Your task to perform on an android device: Open settings on Google Maps Image 0: 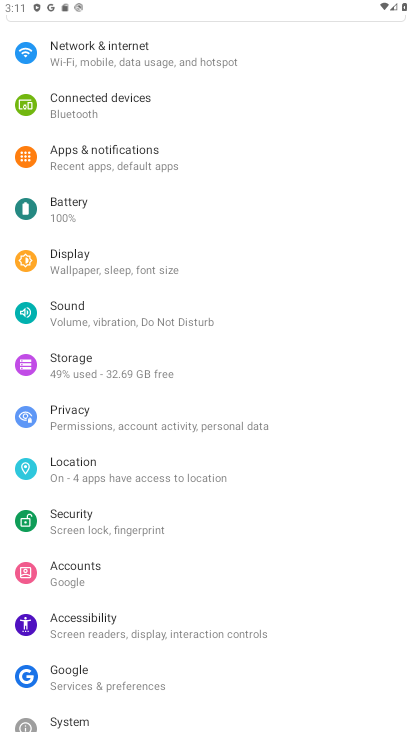
Step 0: press home button
Your task to perform on an android device: Open settings on Google Maps Image 1: 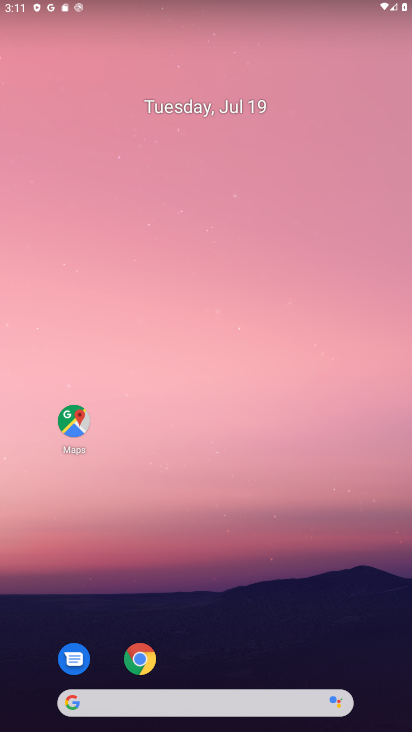
Step 1: drag from (256, 651) to (342, 120)
Your task to perform on an android device: Open settings on Google Maps Image 2: 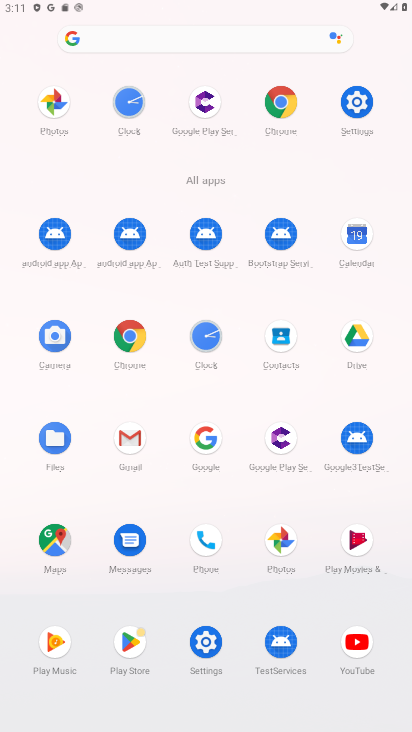
Step 2: click (60, 541)
Your task to perform on an android device: Open settings on Google Maps Image 3: 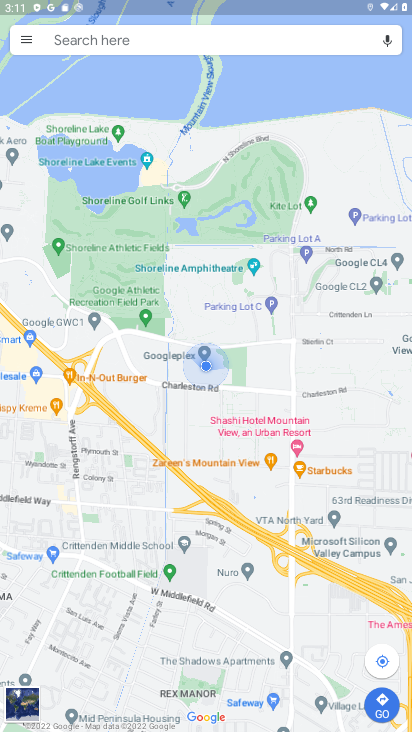
Step 3: click (36, 47)
Your task to perform on an android device: Open settings on Google Maps Image 4: 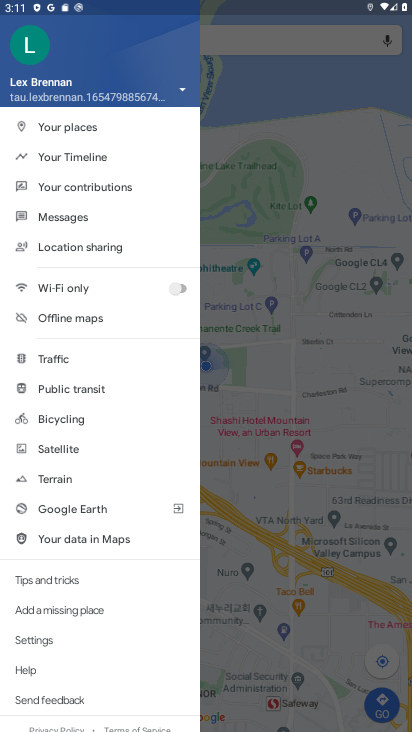
Step 4: drag from (101, 669) to (133, 431)
Your task to perform on an android device: Open settings on Google Maps Image 5: 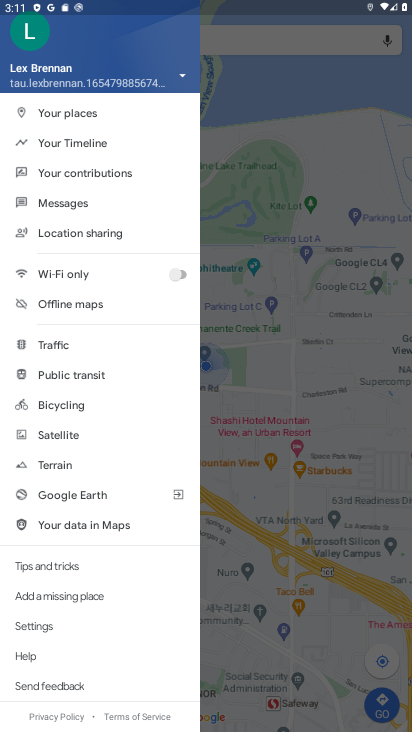
Step 5: click (79, 629)
Your task to perform on an android device: Open settings on Google Maps Image 6: 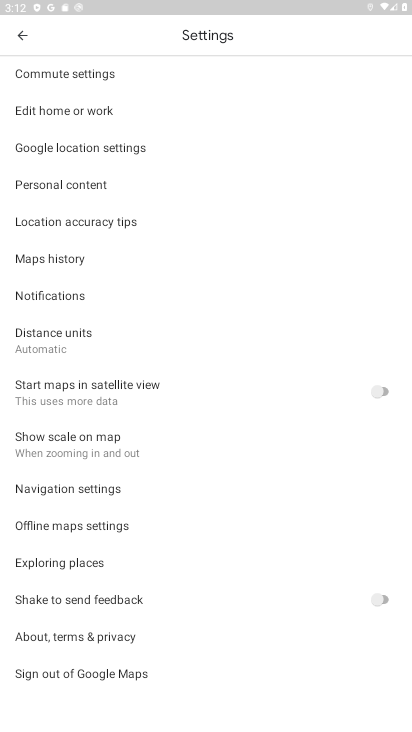
Step 6: task complete